Your task to perform on an android device: Open internet settings Image 0: 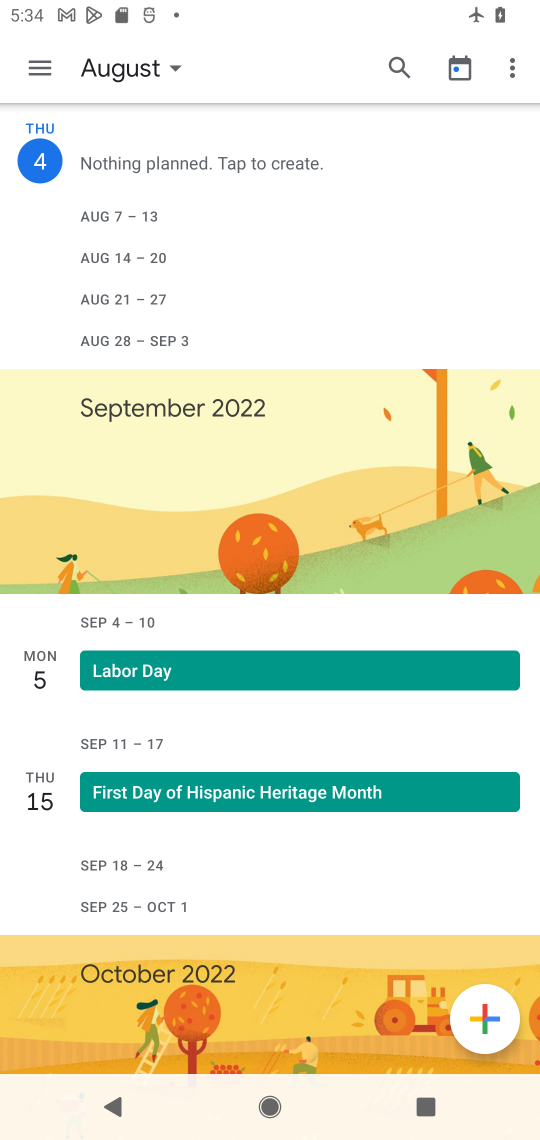
Step 0: press home button
Your task to perform on an android device: Open internet settings Image 1: 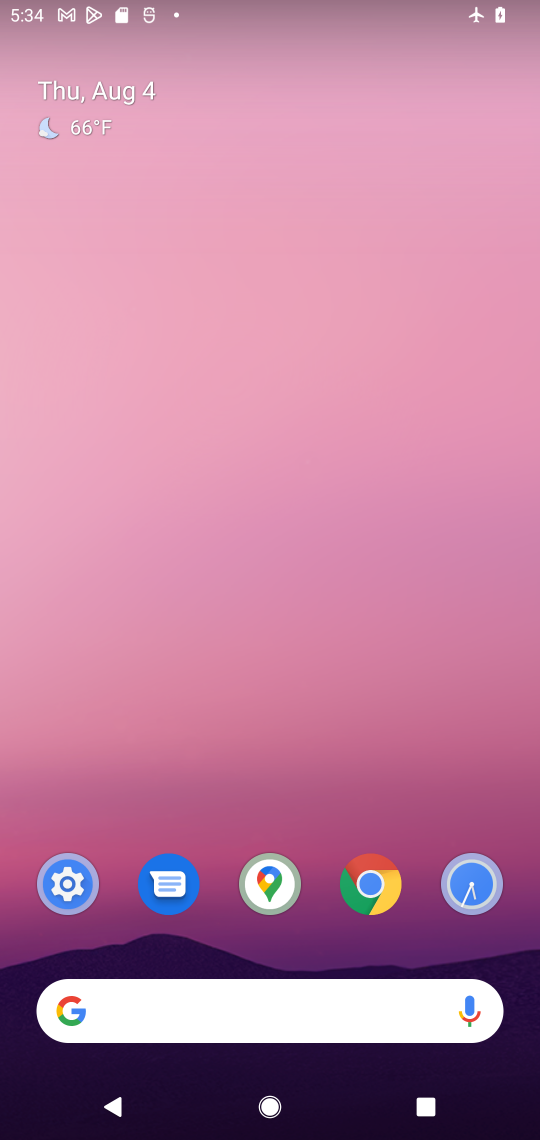
Step 1: click (95, 911)
Your task to perform on an android device: Open internet settings Image 2: 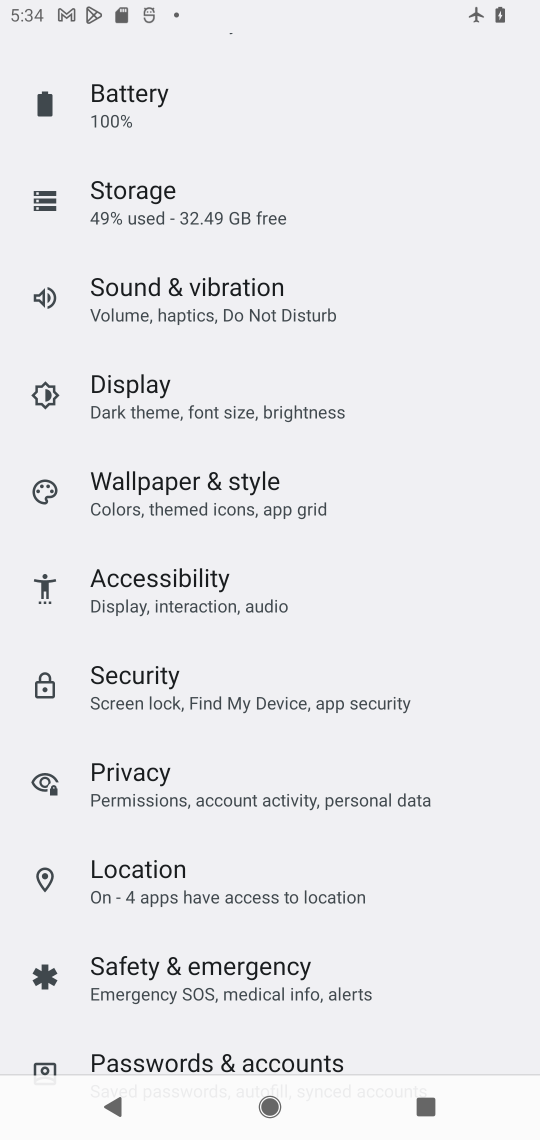
Step 2: drag from (236, 277) to (396, 713)
Your task to perform on an android device: Open internet settings Image 3: 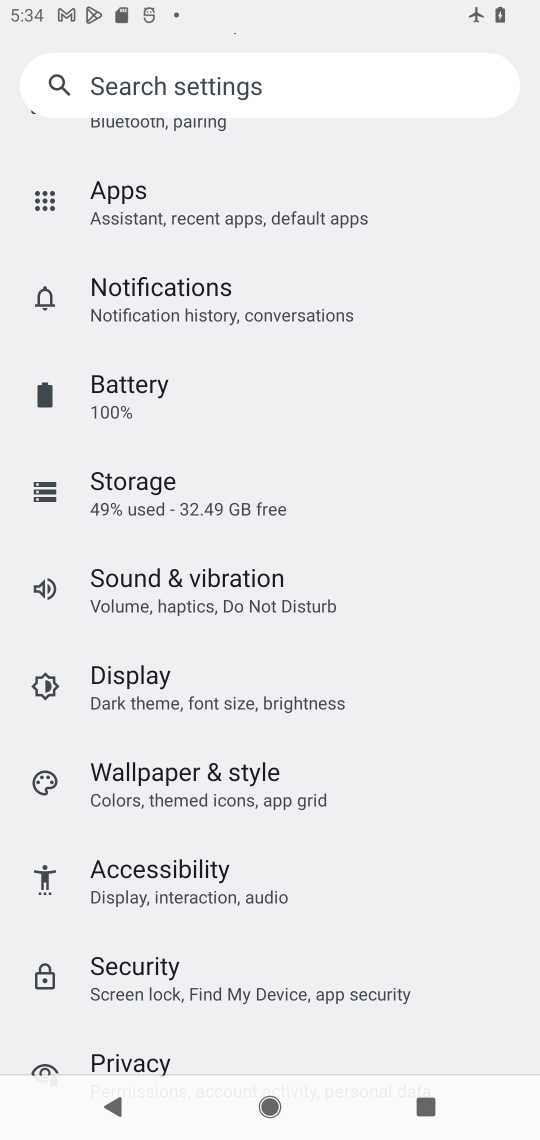
Step 3: click (218, 142)
Your task to perform on an android device: Open internet settings Image 4: 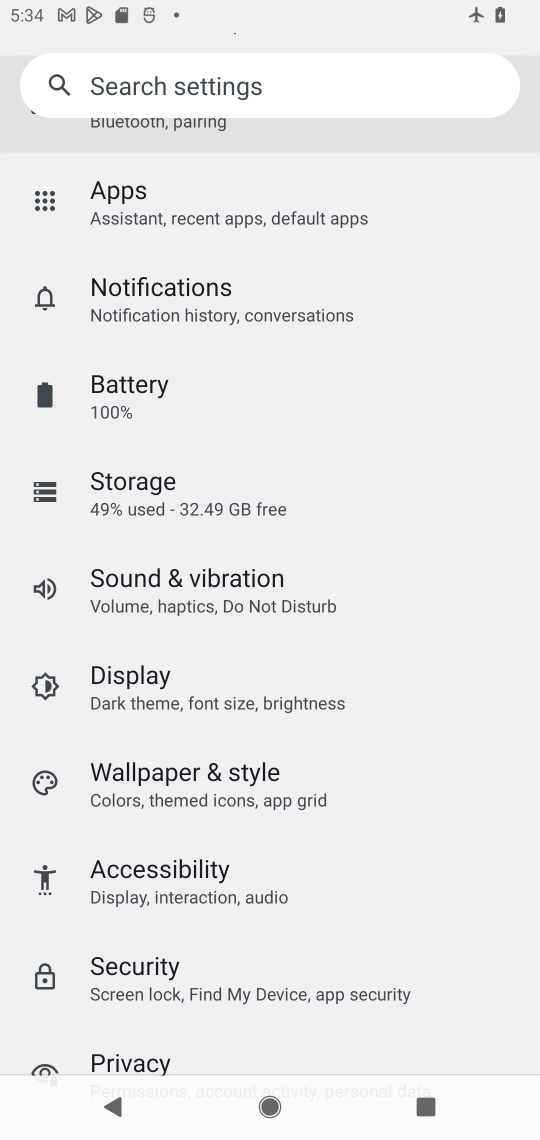
Step 4: task complete